Your task to perform on an android device: toggle priority inbox in the gmail app Image 0: 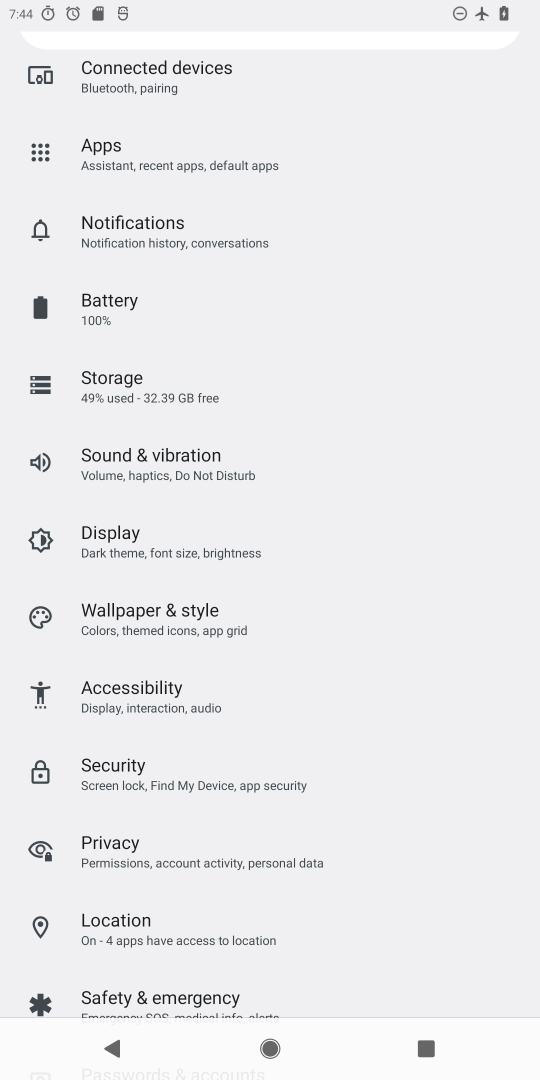
Step 0: press home button
Your task to perform on an android device: toggle priority inbox in the gmail app Image 1: 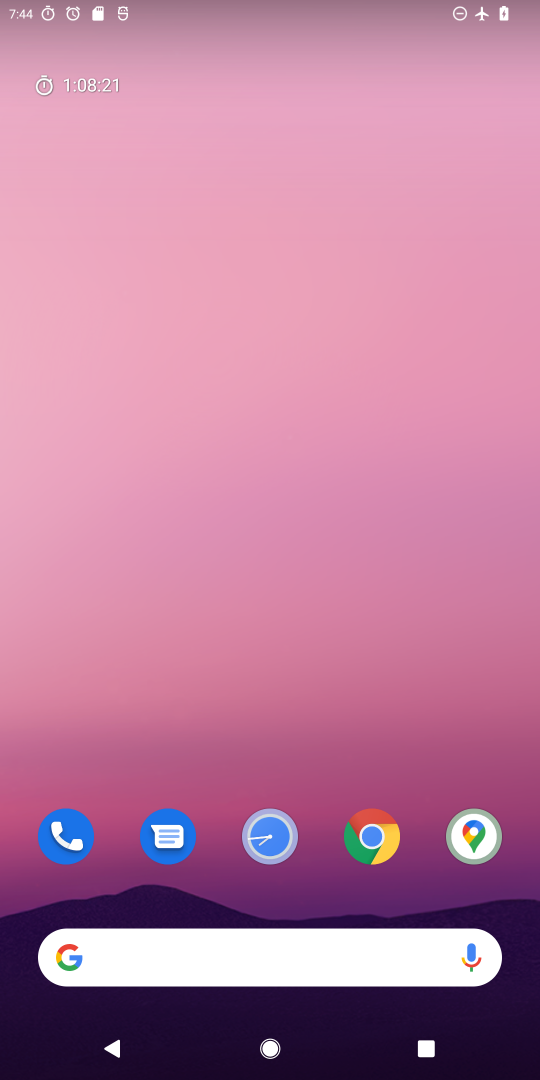
Step 1: drag from (310, 630) to (371, 9)
Your task to perform on an android device: toggle priority inbox in the gmail app Image 2: 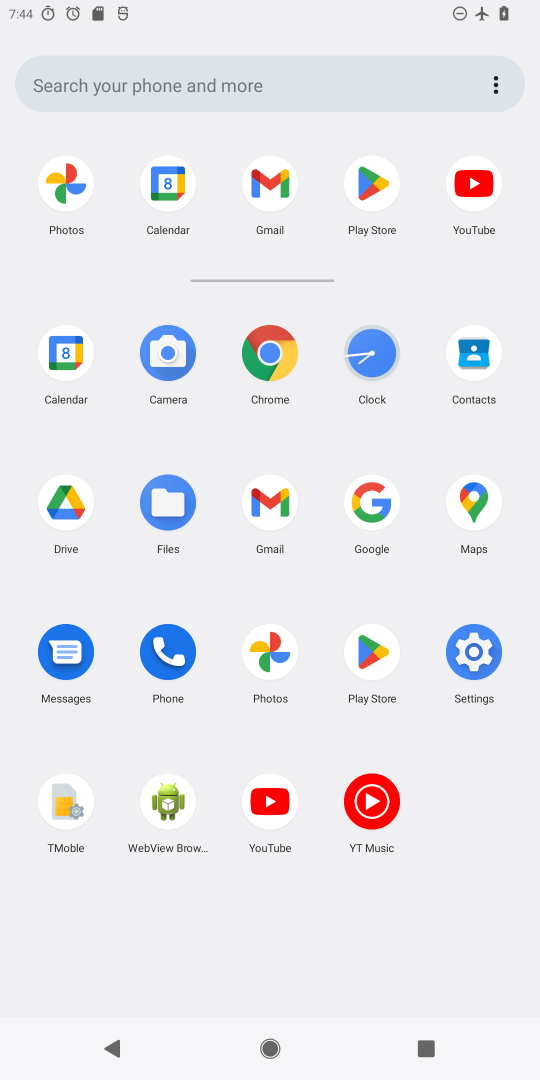
Step 2: click (265, 498)
Your task to perform on an android device: toggle priority inbox in the gmail app Image 3: 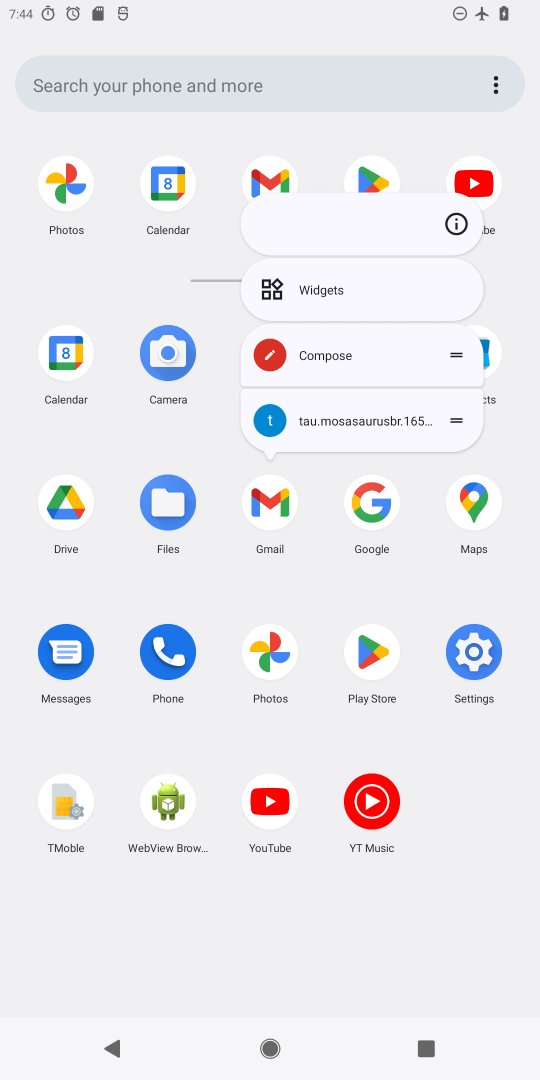
Step 3: click (266, 497)
Your task to perform on an android device: toggle priority inbox in the gmail app Image 4: 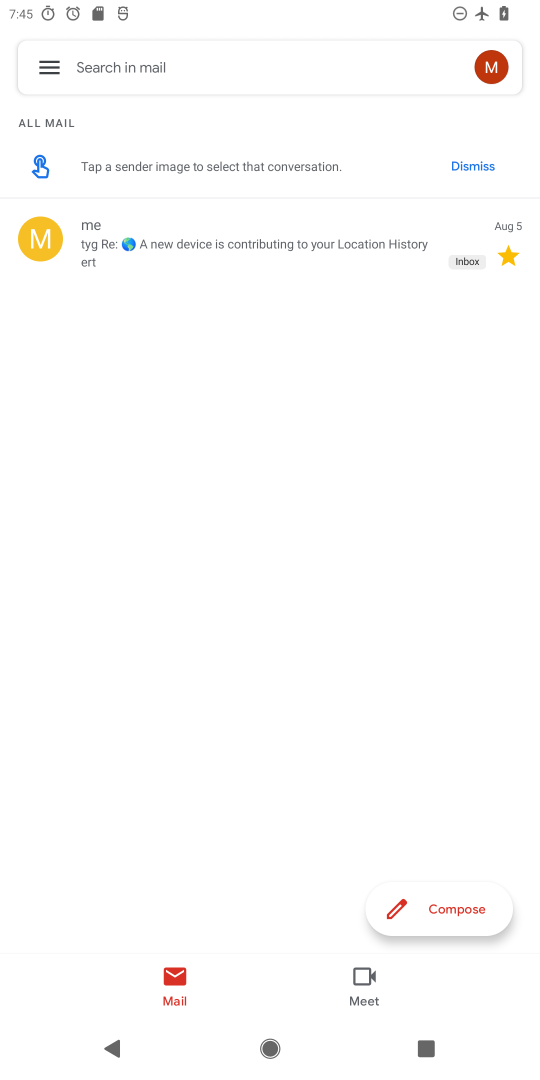
Step 4: click (58, 67)
Your task to perform on an android device: toggle priority inbox in the gmail app Image 5: 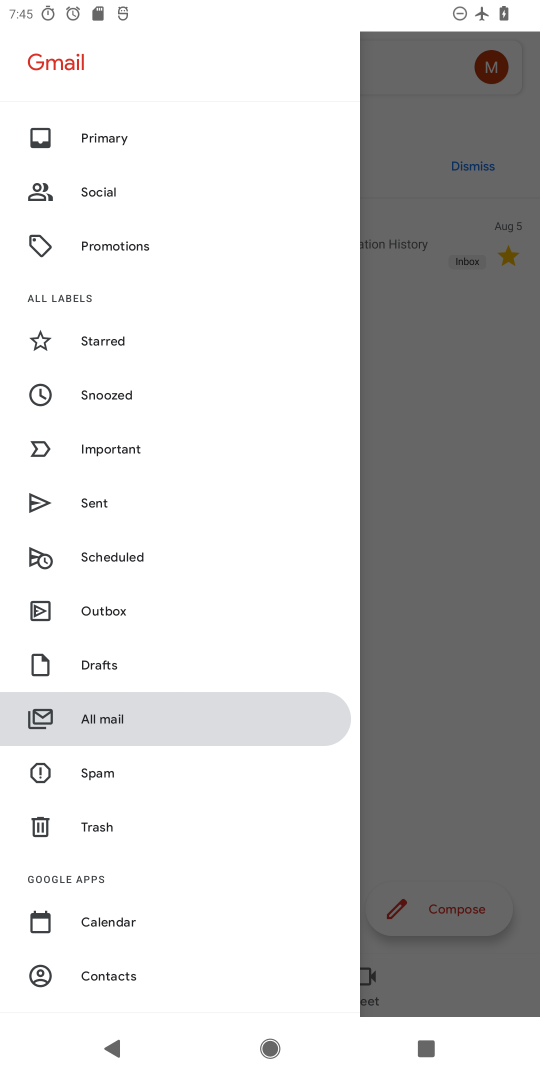
Step 5: drag from (157, 857) to (176, 163)
Your task to perform on an android device: toggle priority inbox in the gmail app Image 6: 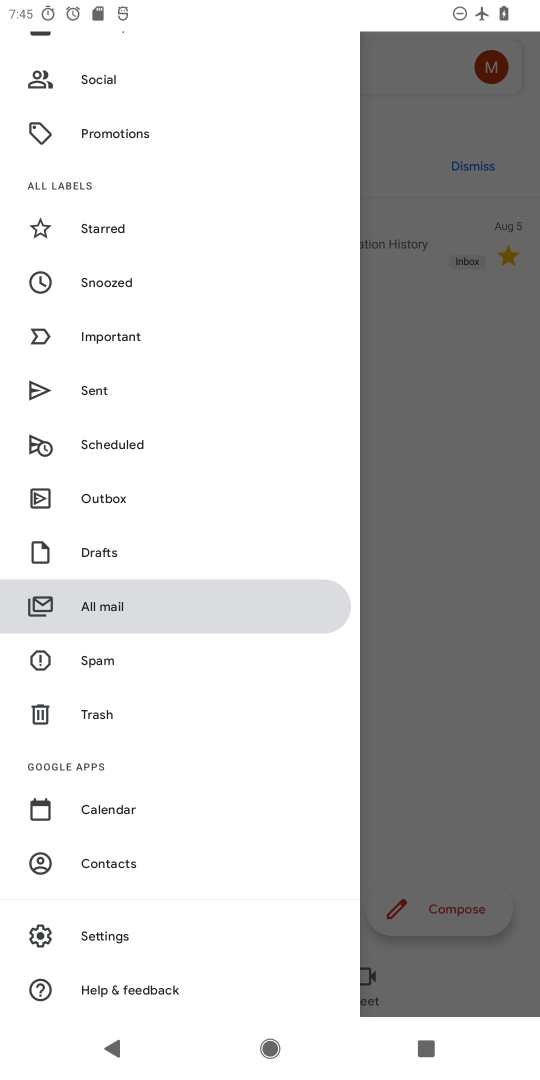
Step 6: click (155, 944)
Your task to perform on an android device: toggle priority inbox in the gmail app Image 7: 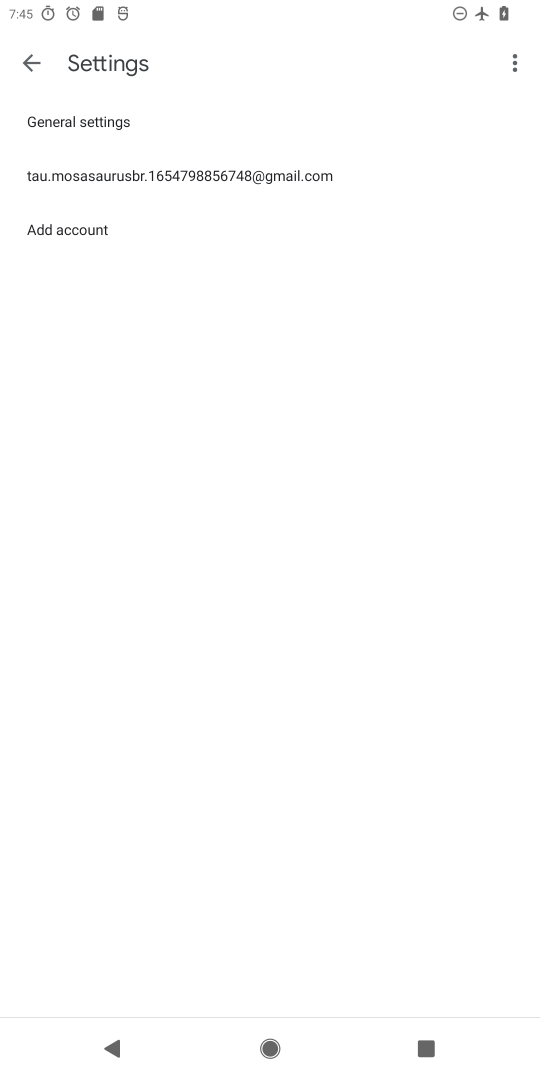
Step 7: click (156, 216)
Your task to perform on an android device: toggle priority inbox in the gmail app Image 8: 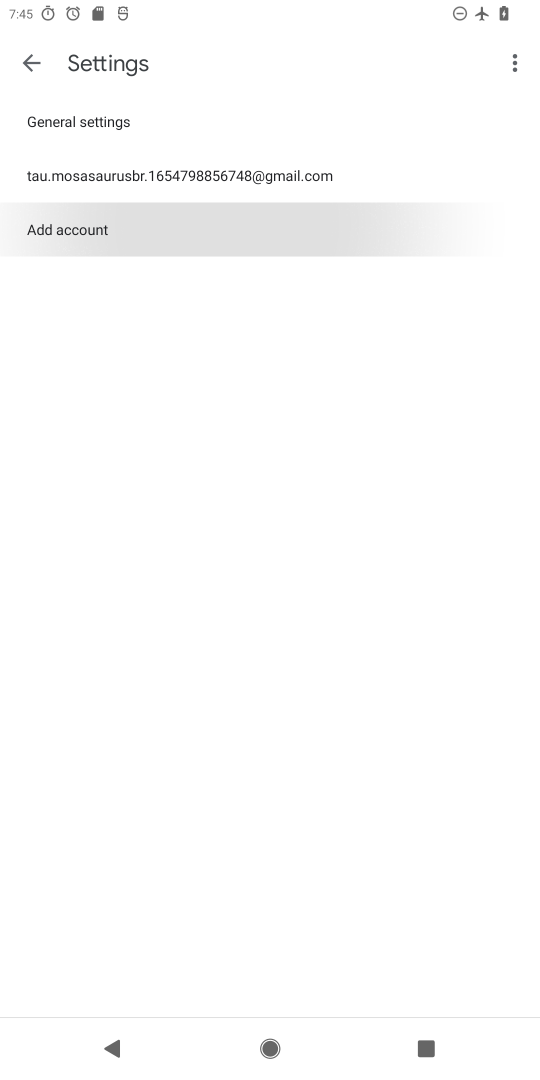
Step 8: click (176, 178)
Your task to perform on an android device: toggle priority inbox in the gmail app Image 9: 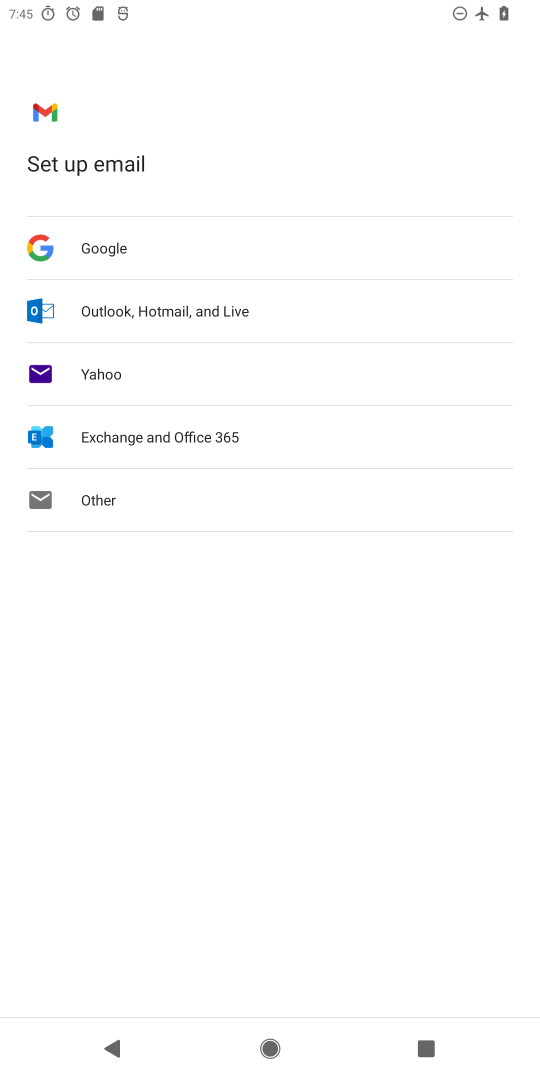
Step 9: press back button
Your task to perform on an android device: toggle priority inbox in the gmail app Image 10: 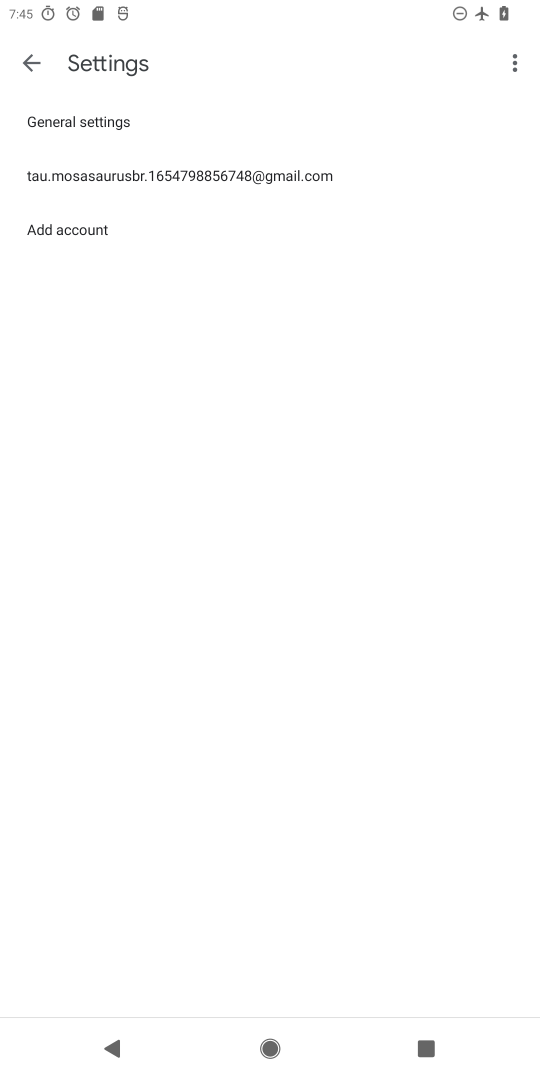
Step 10: click (174, 199)
Your task to perform on an android device: toggle priority inbox in the gmail app Image 11: 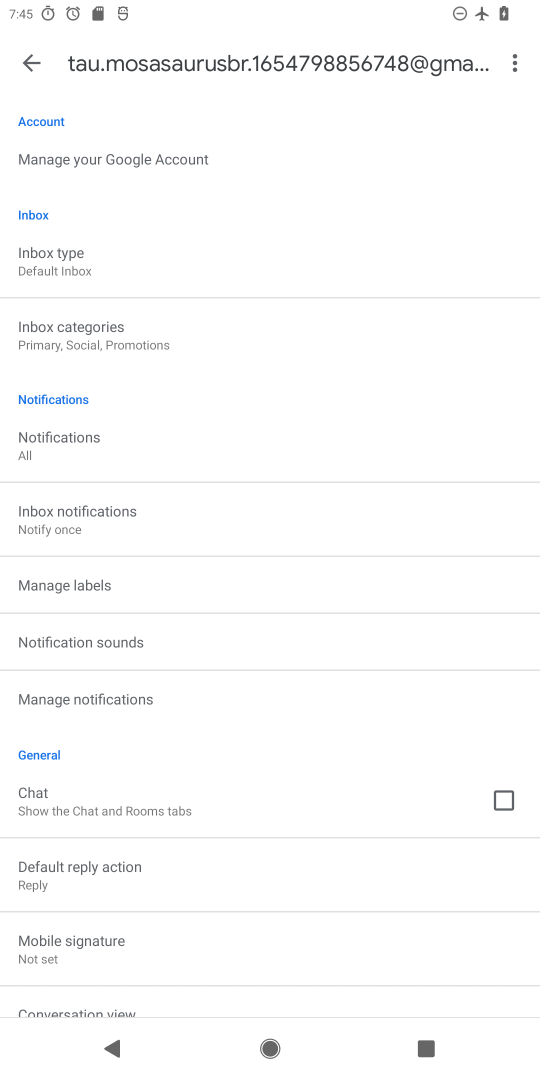
Step 11: click (128, 340)
Your task to perform on an android device: toggle priority inbox in the gmail app Image 12: 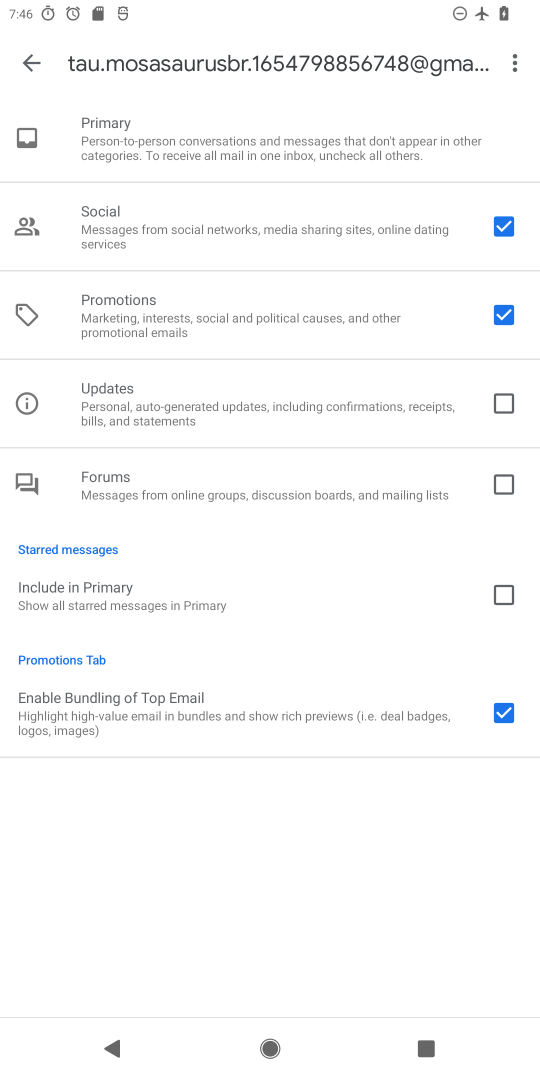
Step 12: press back button
Your task to perform on an android device: toggle priority inbox in the gmail app Image 13: 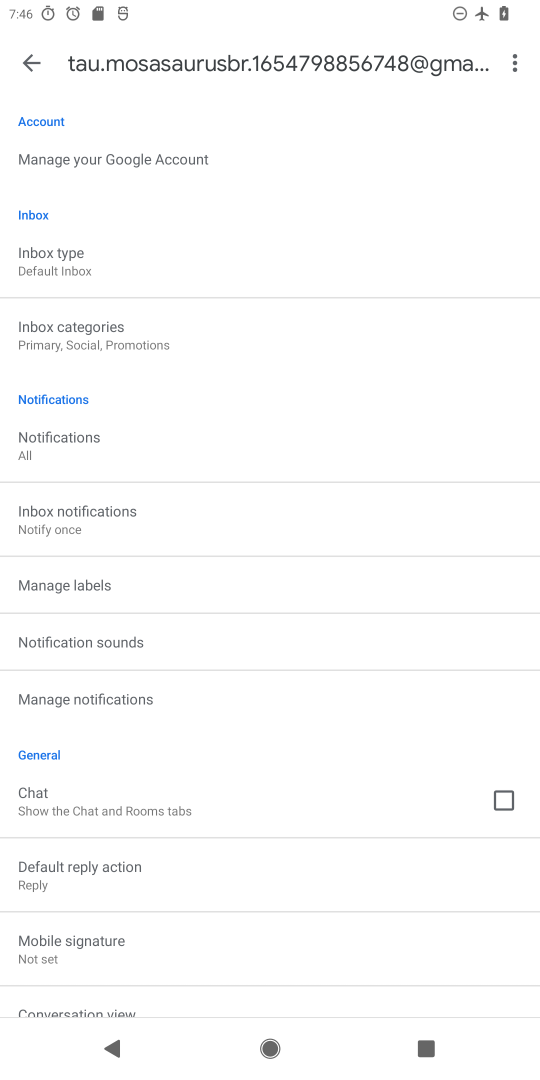
Step 13: click (177, 267)
Your task to perform on an android device: toggle priority inbox in the gmail app Image 14: 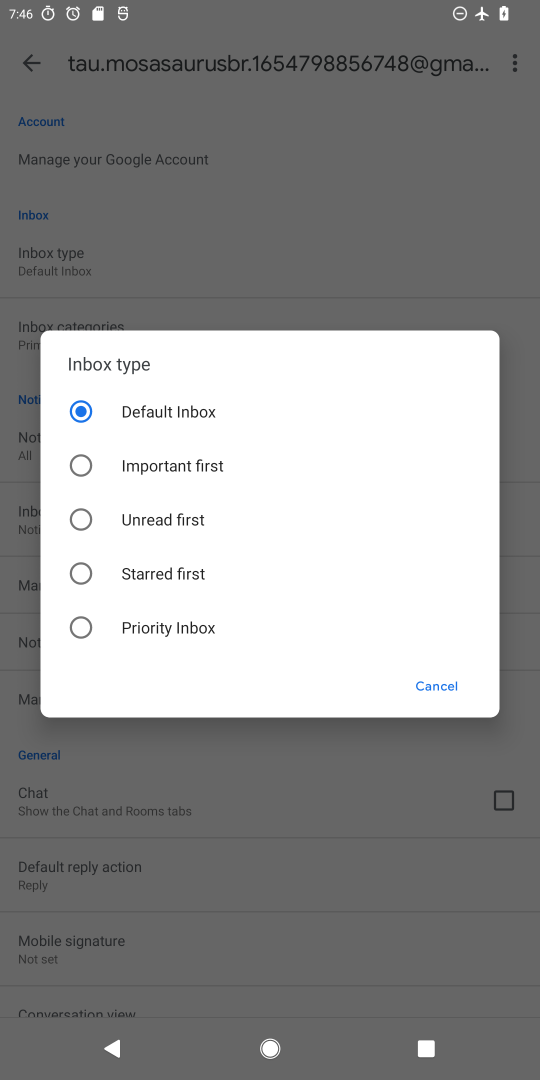
Step 14: click (189, 634)
Your task to perform on an android device: toggle priority inbox in the gmail app Image 15: 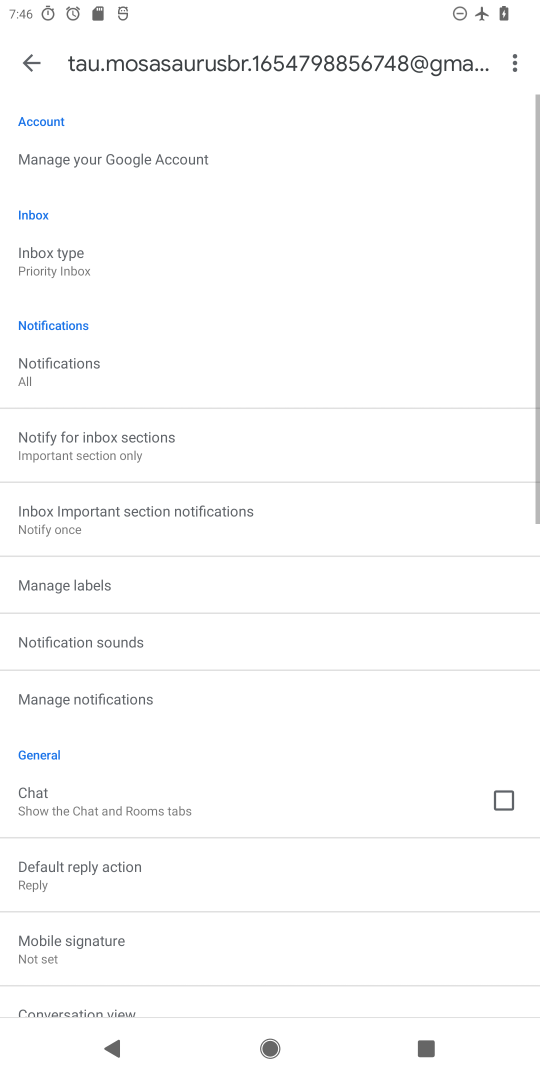
Step 15: task complete